Your task to perform on an android device: Find coffee shops on Maps Image 0: 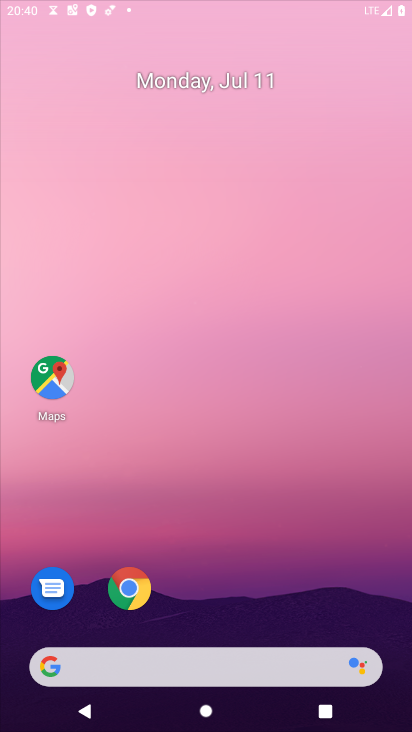
Step 0: press home button
Your task to perform on an android device: Find coffee shops on Maps Image 1: 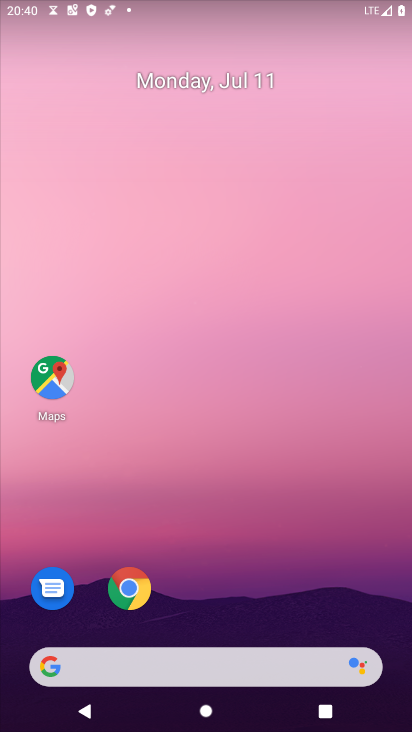
Step 1: drag from (206, 601) to (225, 165)
Your task to perform on an android device: Find coffee shops on Maps Image 2: 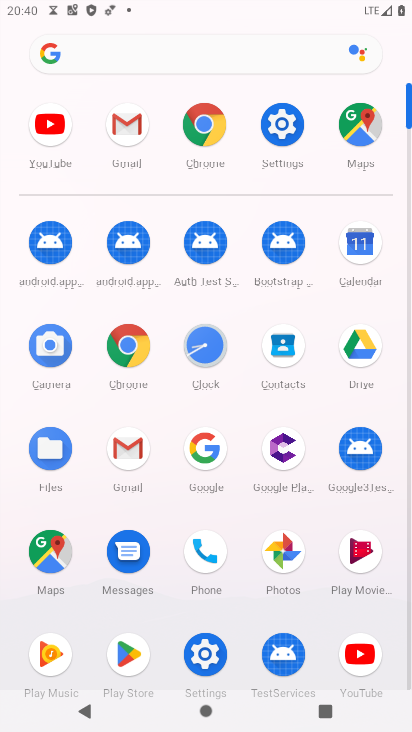
Step 2: click (40, 557)
Your task to perform on an android device: Find coffee shops on Maps Image 3: 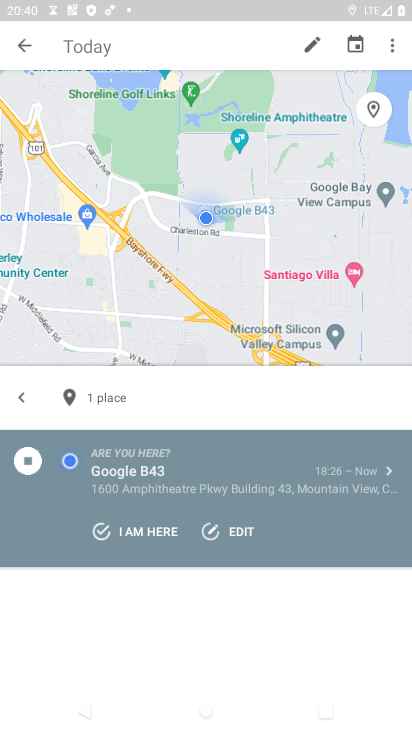
Step 3: click (175, 47)
Your task to perform on an android device: Find coffee shops on Maps Image 4: 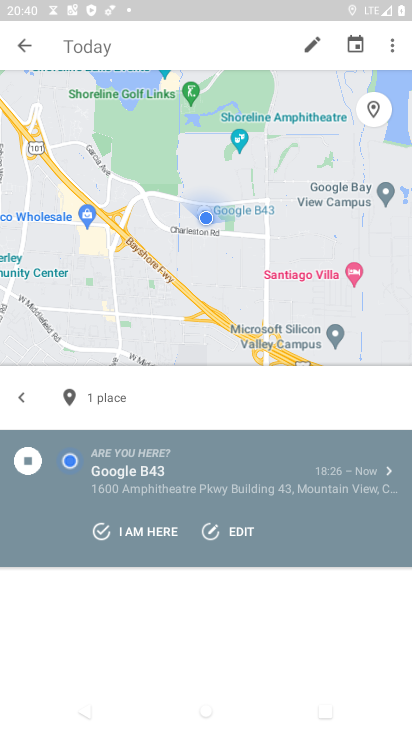
Step 4: press back button
Your task to perform on an android device: Find coffee shops on Maps Image 5: 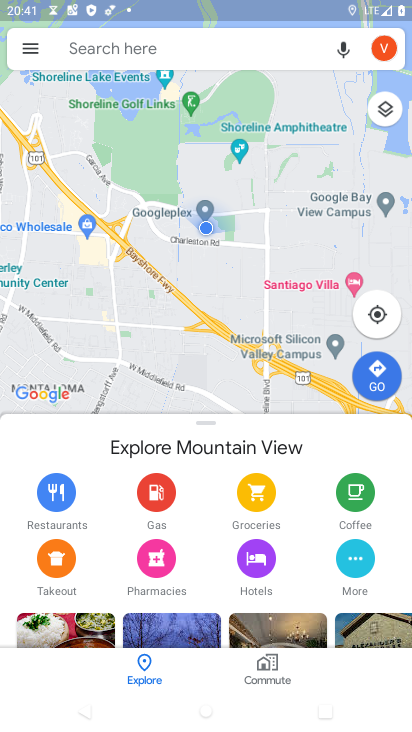
Step 5: click (180, 49)
Your task to perform on an android device: Find coffee shops on Maps Image 6: 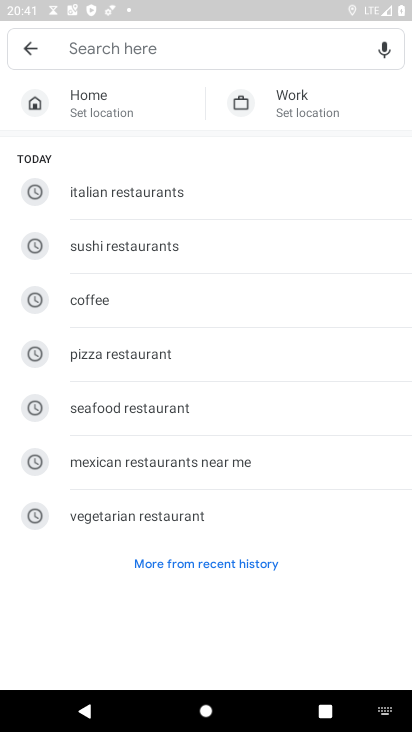
Step 6: type "coffee shops"
Your task to perform on an android device: Find coffee shops on Maps Image 7: 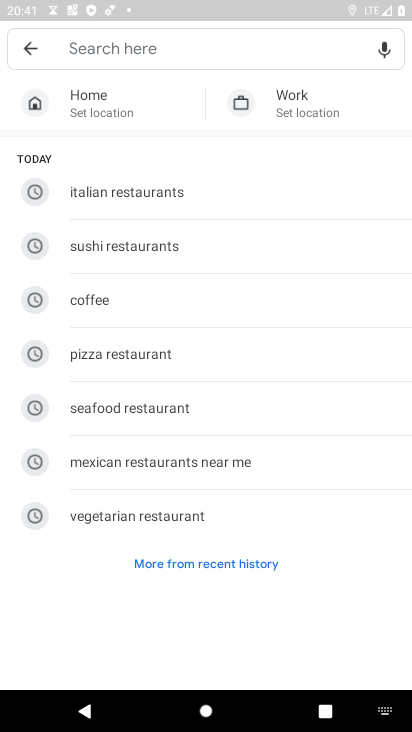
Step 7: click (87, 46)
Your task to perform on an android device: Find coffee shops on Maps Image 8: 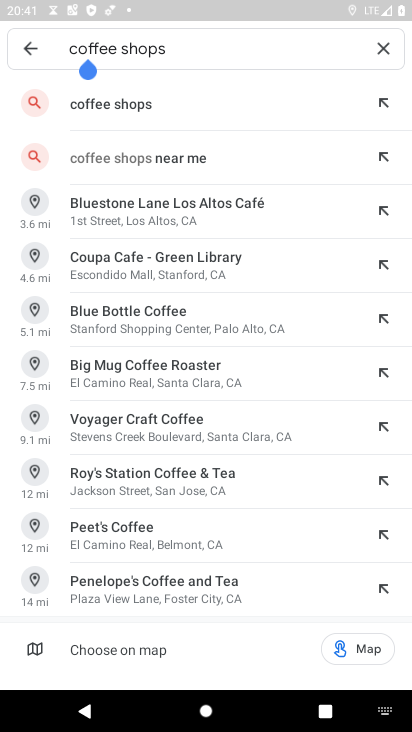
Step 8: click (111, 105)
Your task to perform on an android device: Find coffee shops on Maps Image 9: 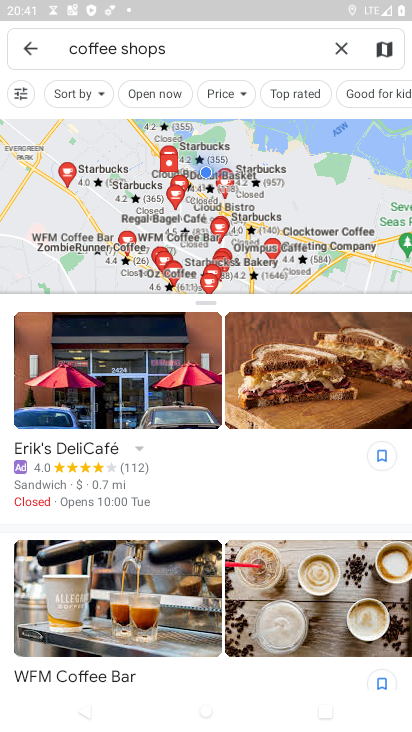
Step 9: task complete